Your task to perform on an android device: What is the news today? Image 0: 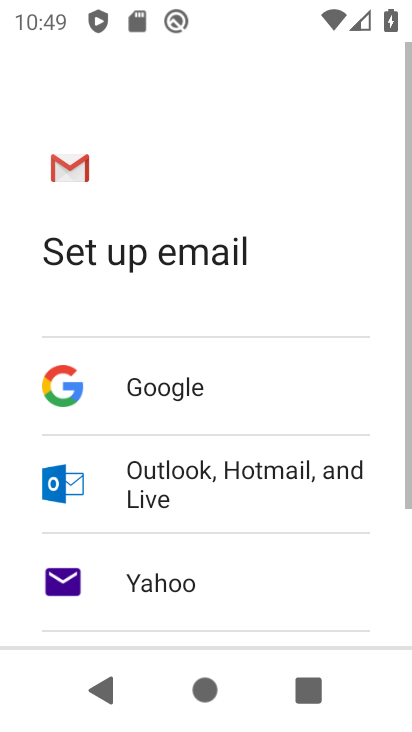
Step 0: press home button
Your task to perform on an android device: What is the news today? Image 1: 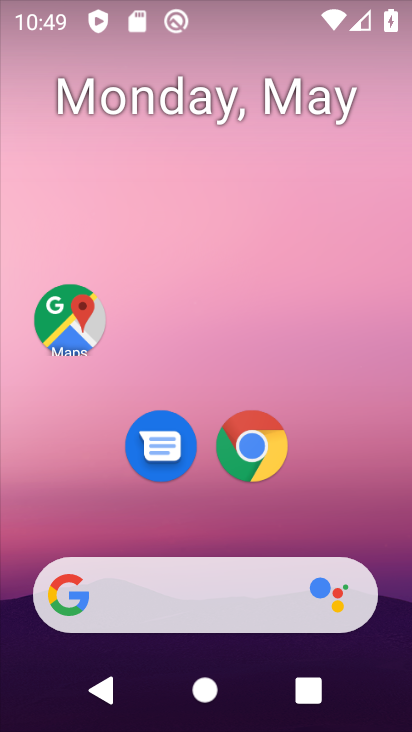
Step 1: drag from (327, 481) to (248, 115)
Your task to perform on an android device: What is the news today? Image 2: 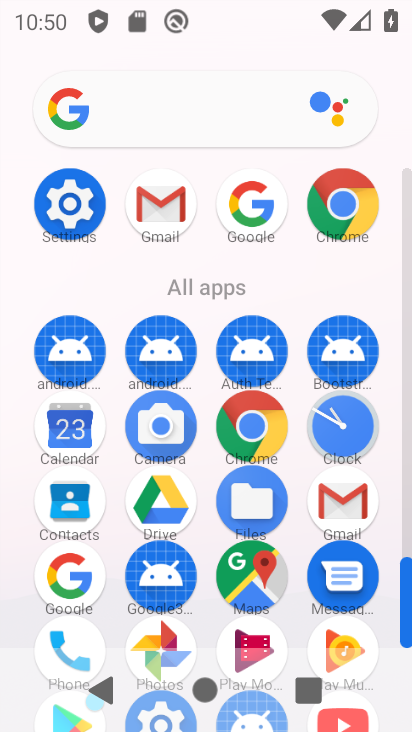
Step 2: click (306, 202)
Your task to perform on an android device: What is the news today? Image 3: 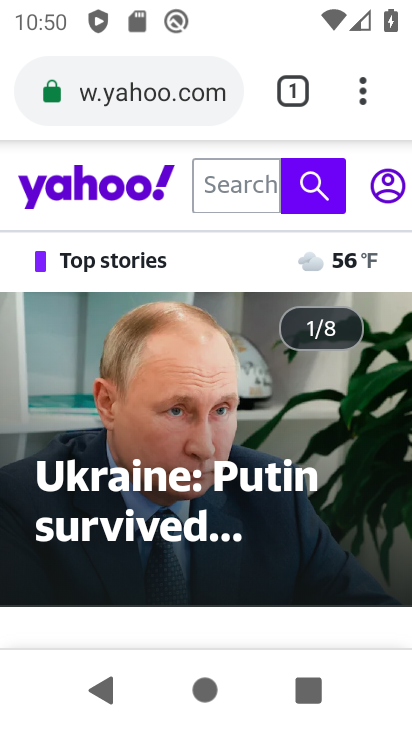
Step 3: drag from (362, 94) to (122, 199)
Your task to perform on an android device: What is the news today? Image 4: 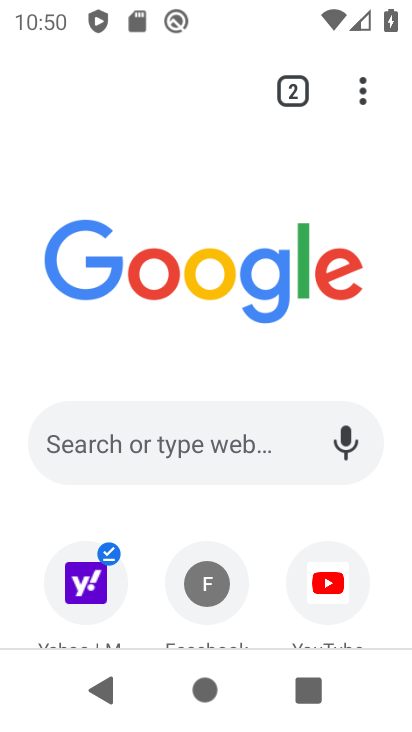
Step 4: drag from (162, 526) to (225, 115)
Your task to perform on an android device: What is the news today? Image 5: 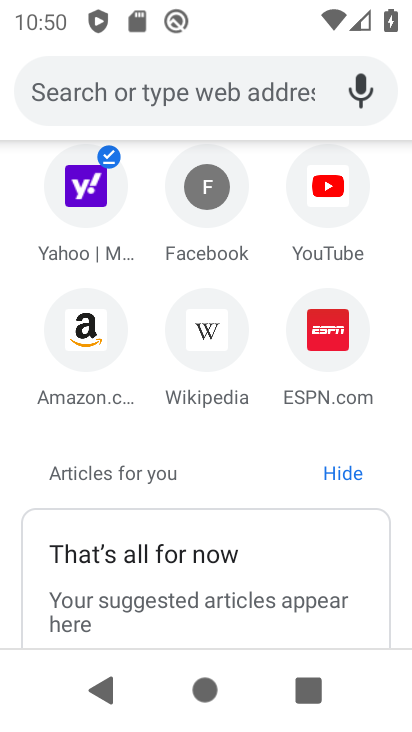
Step 5: drag from (210, 528) to (216, 50)
Your task to perform on an android device: What is the news today? Image 6: 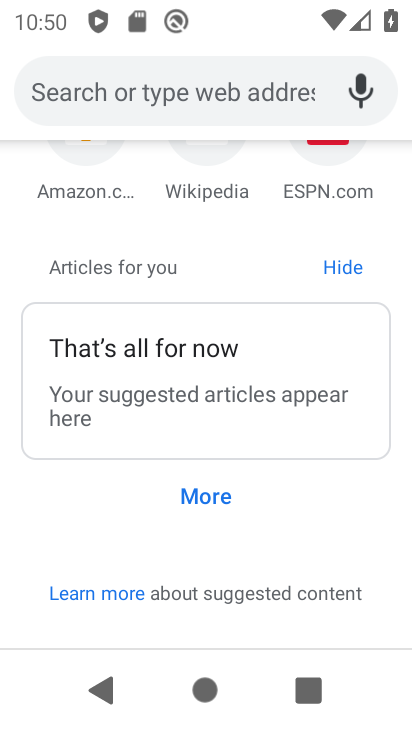
Step 6: click (211, 489)
Your task to perform on an android device: What is the news today? Image 7: 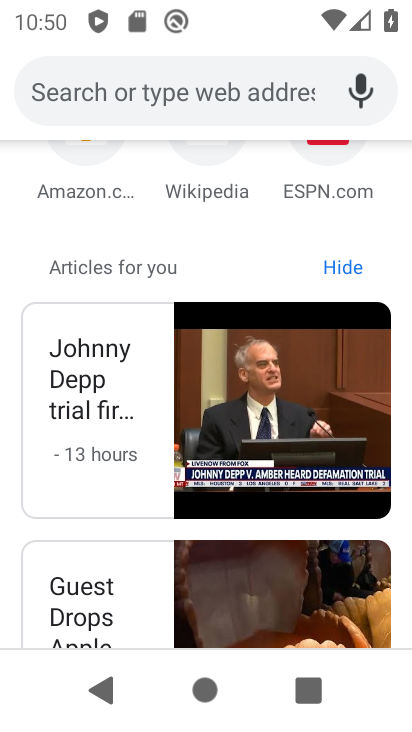
Step 7: task complete